Your task to perform on an android device: Open Google Chrome and click the shortcut for Amazon.com Image 0: 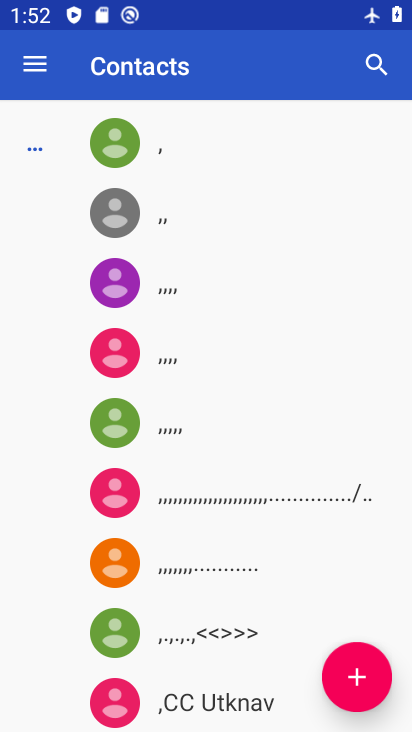
Step 0: press home button
Your task to perform on an android device: Open Google Chrome and click the shortcut for Amazon.com Image 1: 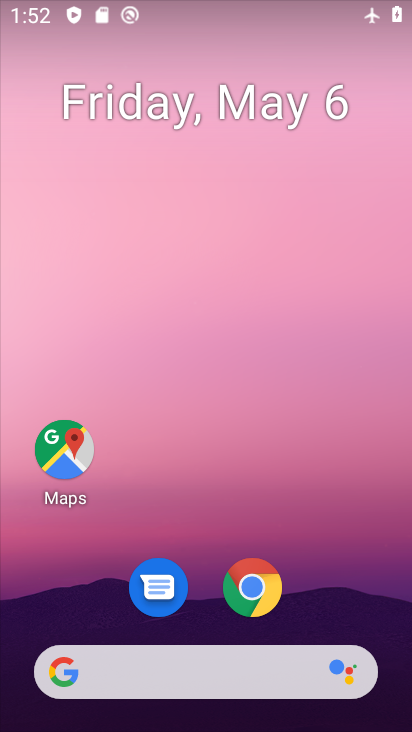
Step 1: click (256, 589)
Your task to perform on an android device: Open Google Chrome and click the shortcut for Amazon.com Image 2: 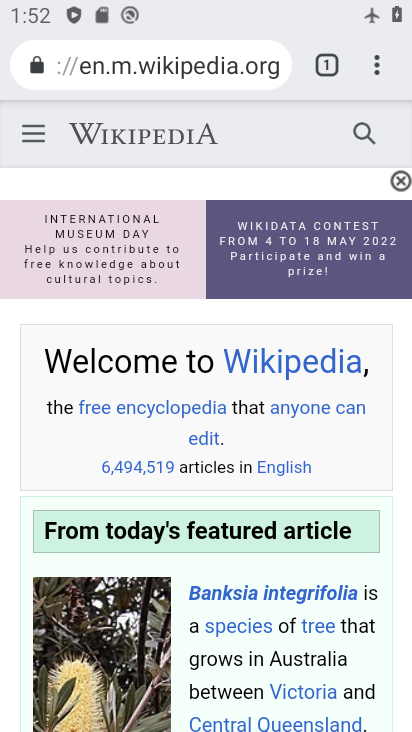
Step 2: click (377, 77)
Your task to perform on an android device: Open Google Chrome and click the shortcut for Amazon.com Image 3: 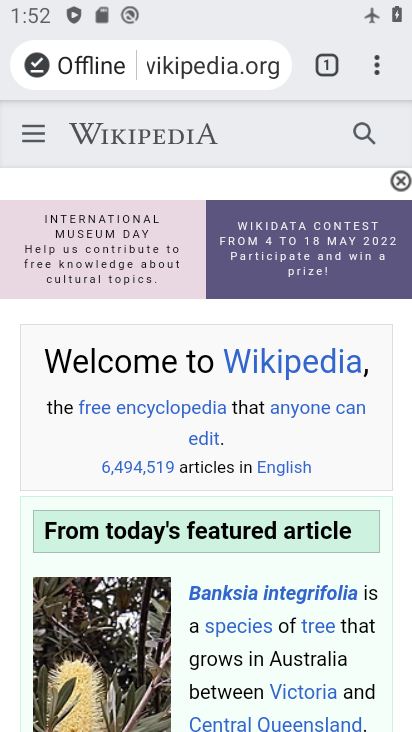
Step 3: click (376, 72)
Your task to perform on an android device: Open Google Chrome and click the shortcut for Amazon.com Image 4: 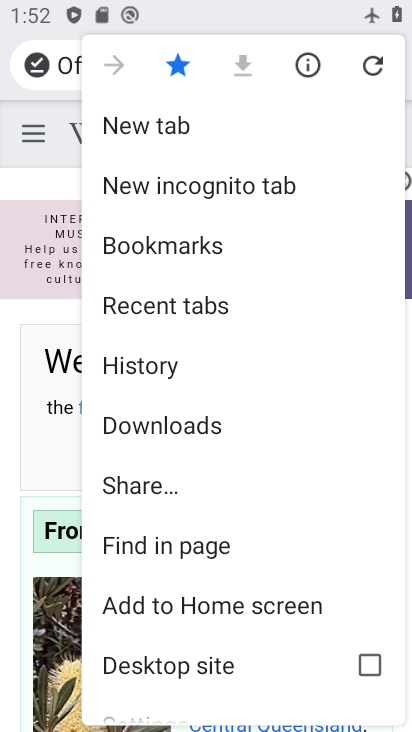
Step 4: click (174, 131)
Your task to perform on an android device: Open Google Chrome and click the shortcut for Amazon.com Image 5: 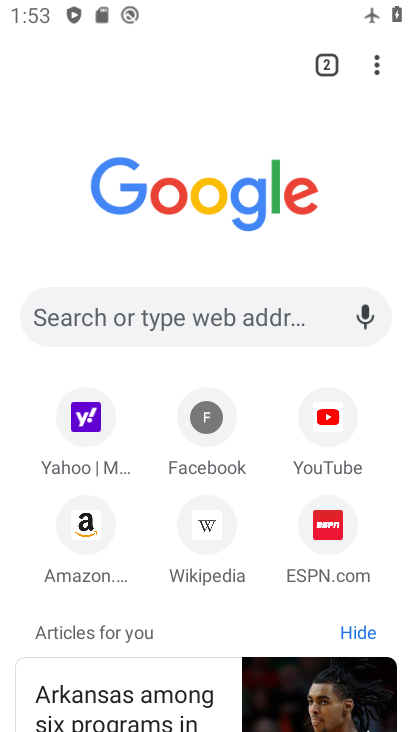
Step 5: click (98, 530)
Your task to perform on an android device: Open Google Chrome and click the shortcut for Amazon.com Image 6: 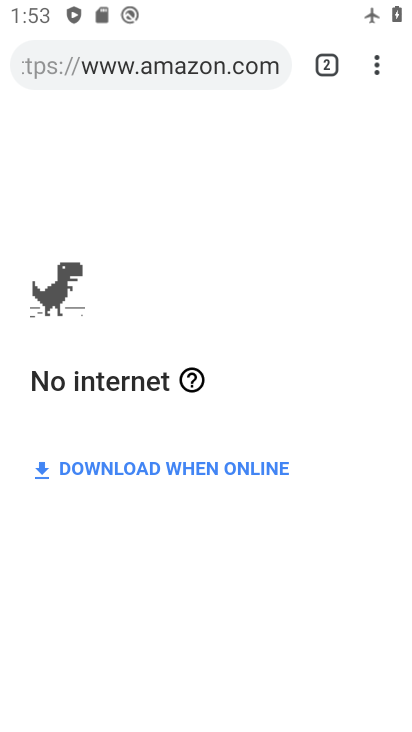
Step 6: task complete